Your task to perform on an android device: open chrome privacy settings Image 0: 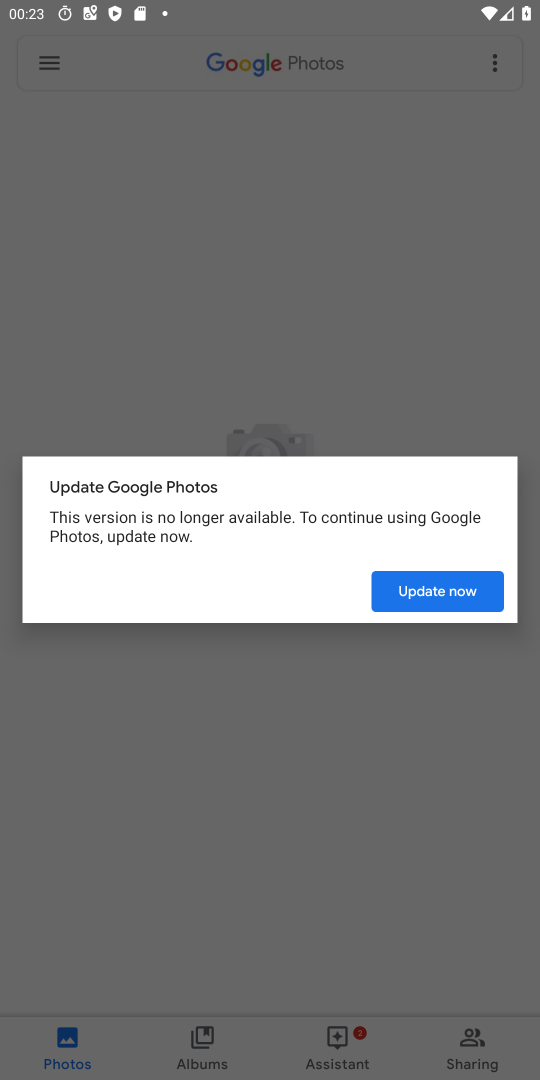
Step 0: press home button
Your task to perform on an android device: open chrome privacy settings Image 1: 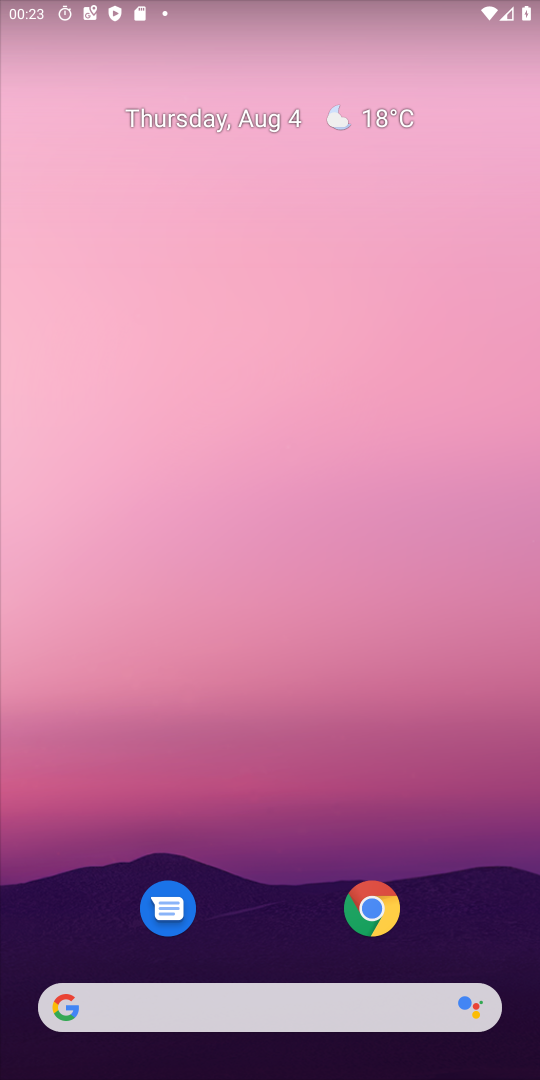
Step 1: drag from (358, 1010) to (279, 320)
Your task to perform on an android device: open chrome privacy settings Image 2: 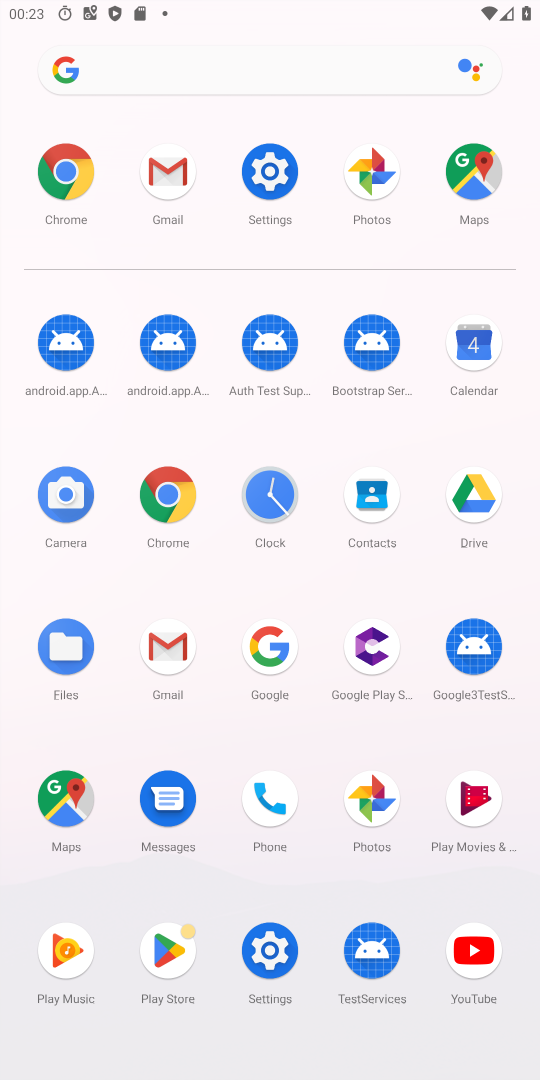
Step 2: click (268, 154)
Your task to perform on an android device: open chrome privacy settings Image 3: 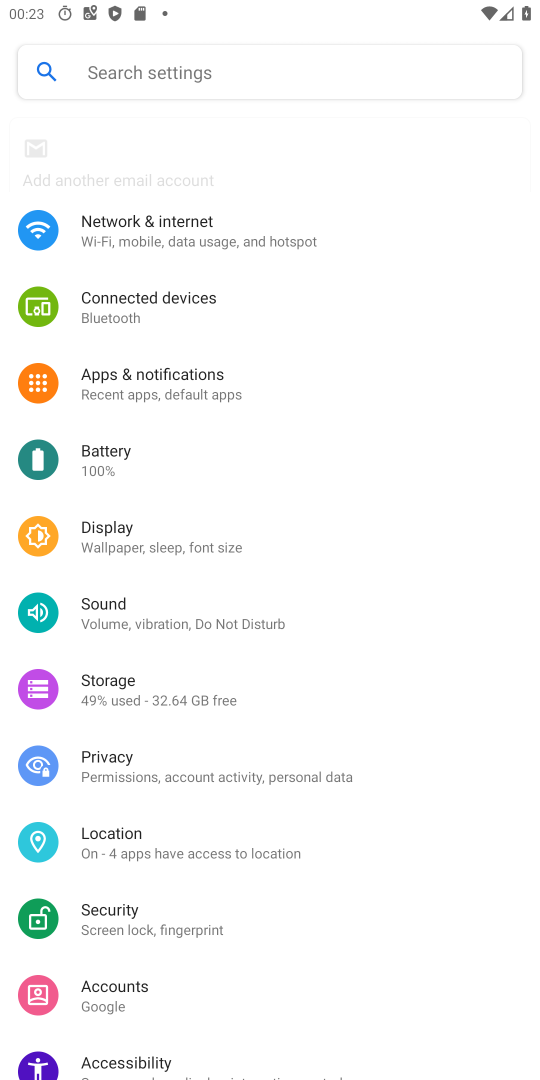
Step 3: press home button
Your task to perform on an android device: open chrome privacy settings Image 4: 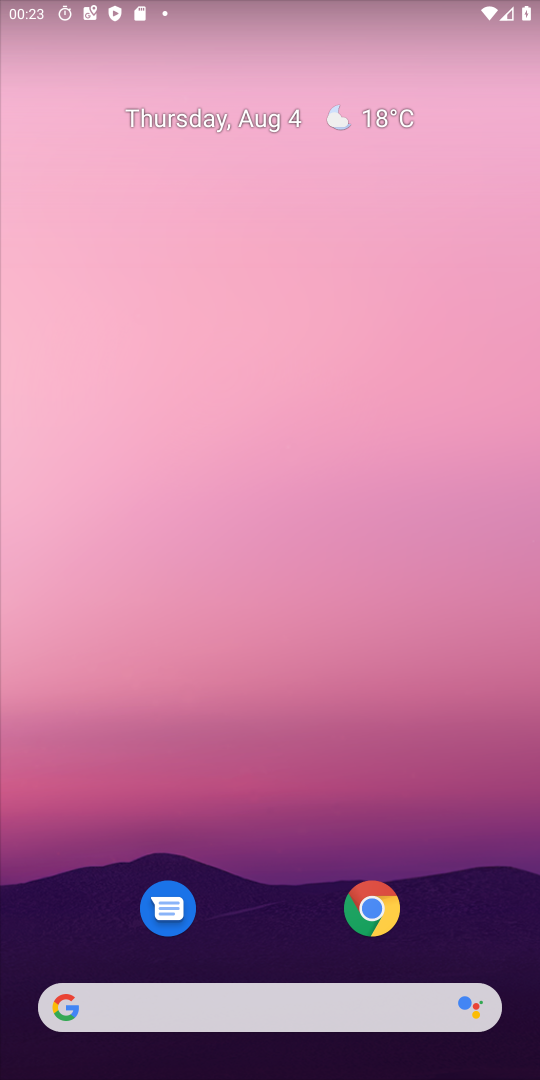
Step 4: click (362, 914)
Your task to perform on an android device: open chrome privacy settings Image 5: 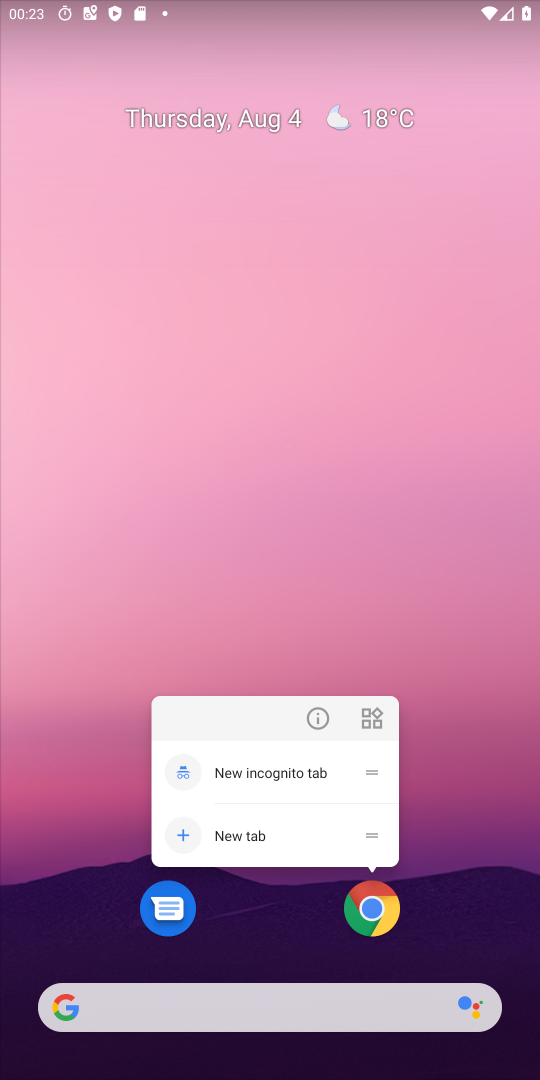
Step 5: drag from (259, 1054) to (373, 398)
Your task to perform on an android device: open chrome privacy settings Image 6: 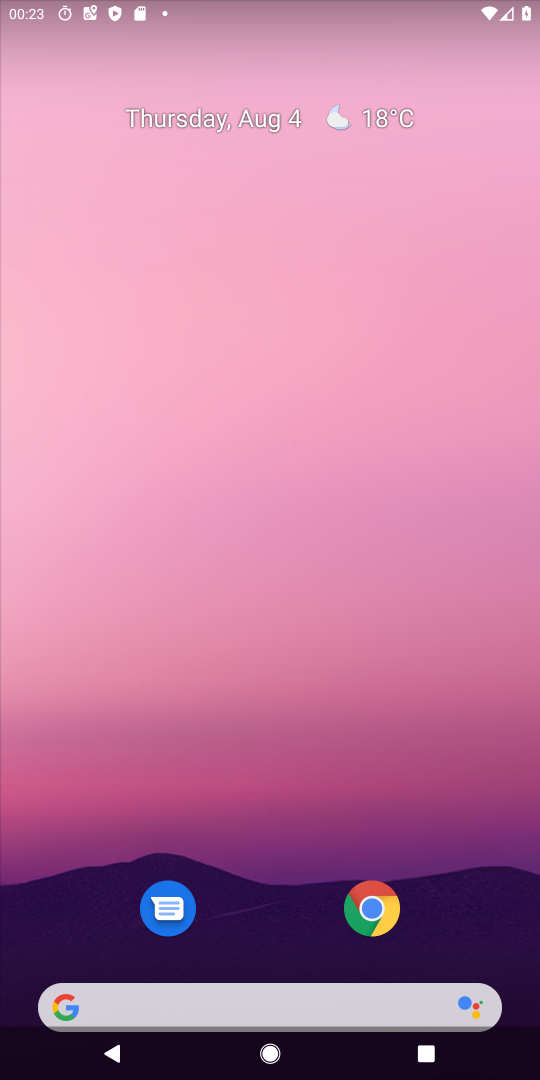
Step 6: drag from (373, 882) to (516, 124)
Your task to perform on an android device: open chrome privacy settings Image 7: 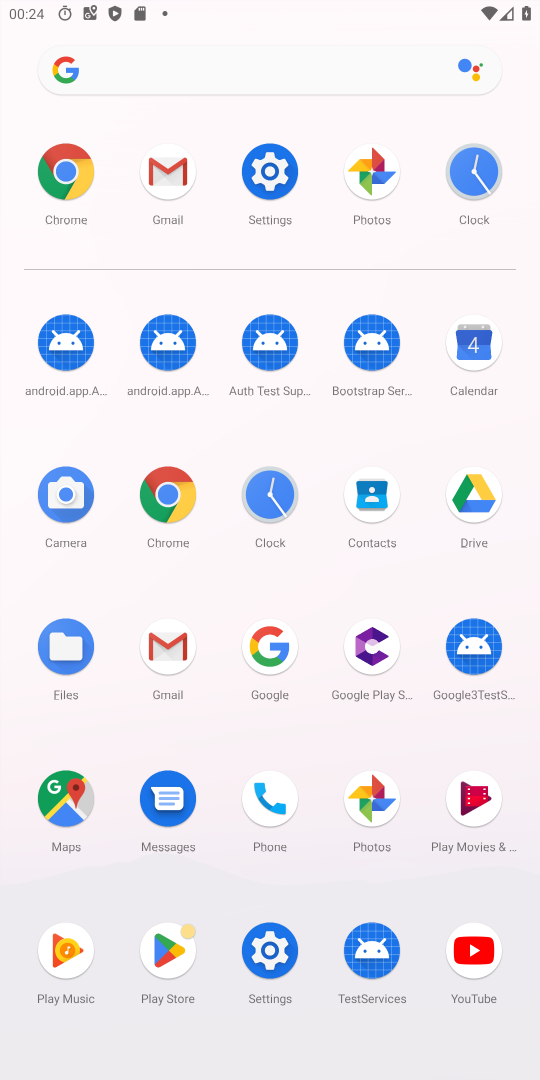
Step 7: click (69, 159)
Your task to perform on an android device: open chrome privacy settings Image 8: 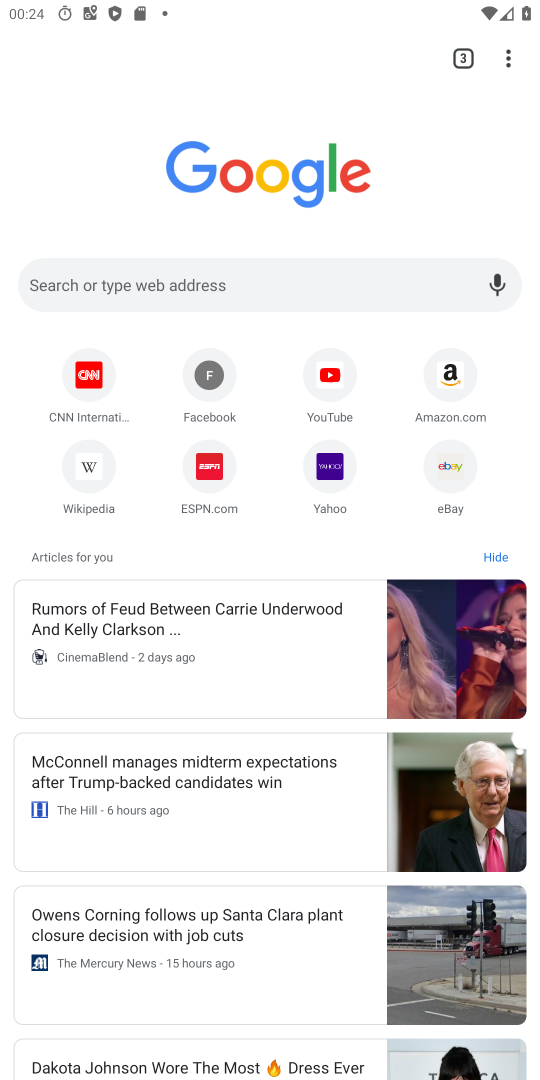
Step 8: click (505, 59)
Your task to perform on an android device: open chrome privacy settings Image 9: 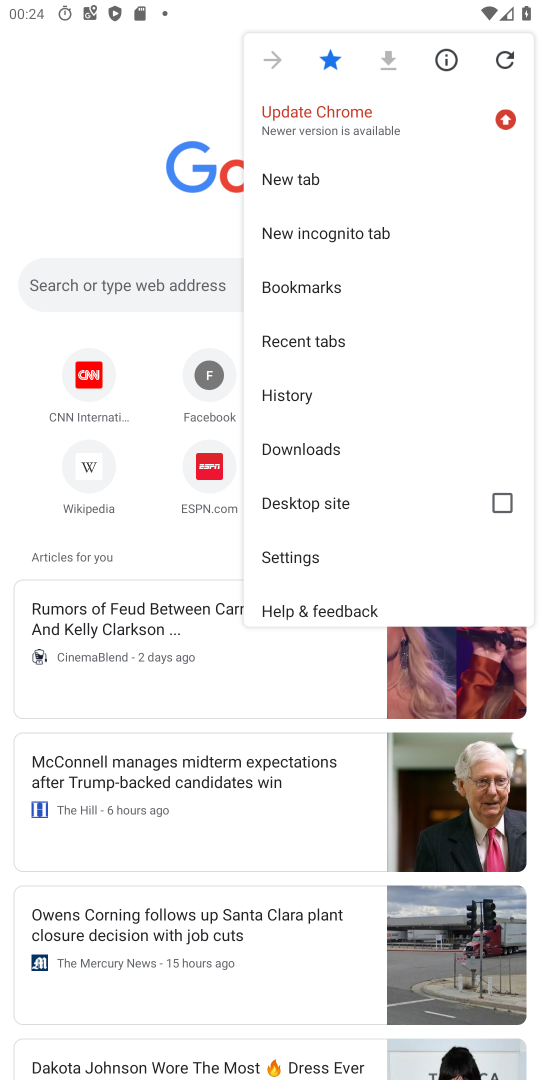
Step 9: click (315, 555)
Your task to perform on an android device: open chrome privacy settings Image 10: 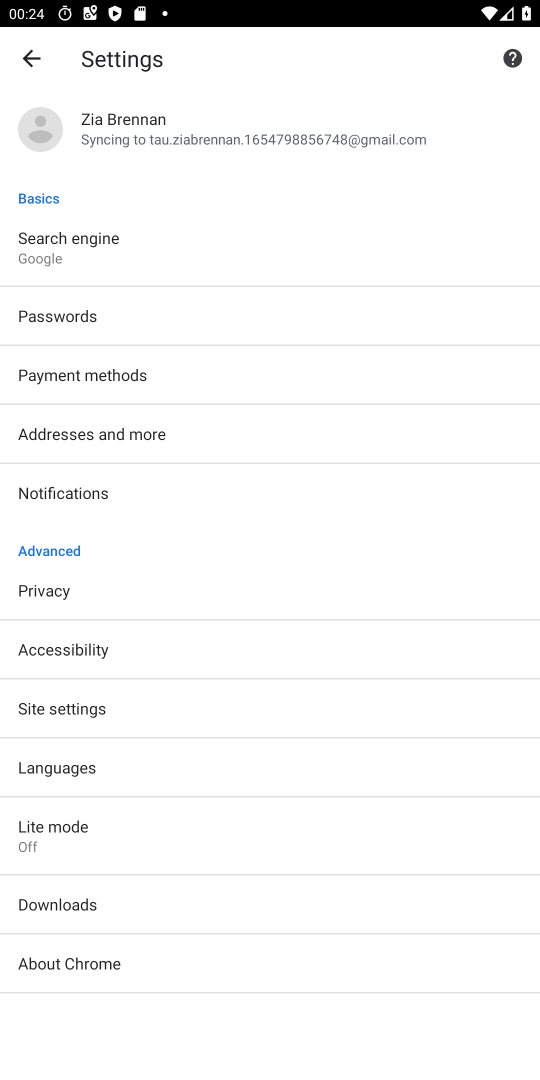
Step 10: click (60, 601)
Your task to perform on an android device: open chrome privacy settings Image 11: 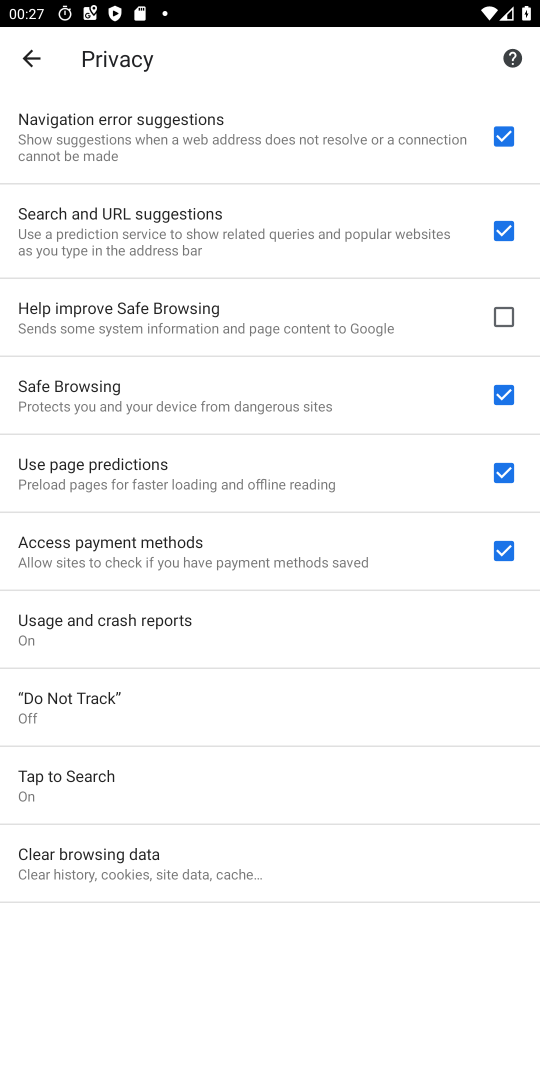
Step 11: task complete